Your task to perform on an android device: toggle location history Image 0: 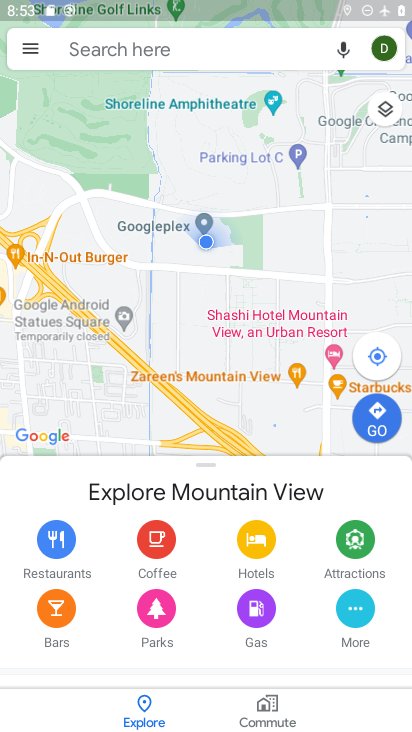
Step 0: press home button
Your task to perform on an android device: toggle location history Image 1: 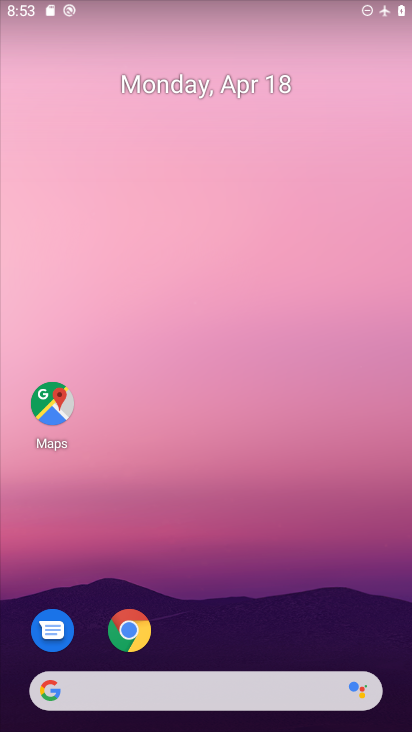
Step 1: drag from (203, 624) to (321, 3)
Your task to perform on an android device: toggle location history Image 2: 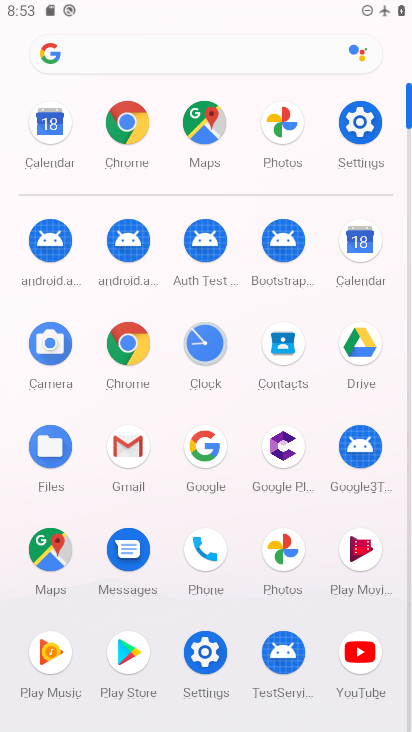
Step 2: click (207, 659)
Your task to perform on an android device: toggle location history Image 3: 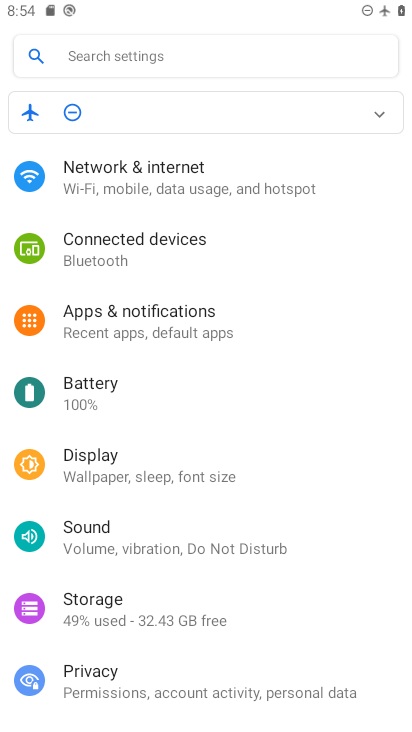
Step 3: drag from (139, 663) to (217, 193)
Your task to perform on an android device: toggle location history Image 4: 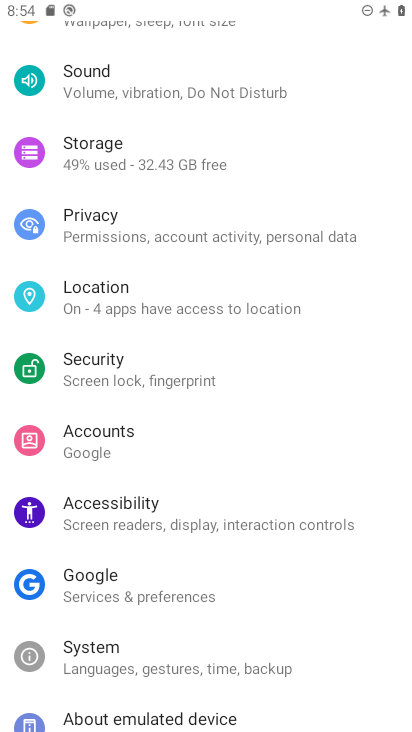
Step 4: click (129, 314)
Your task to perform on an android device: toggle location history Image 5: 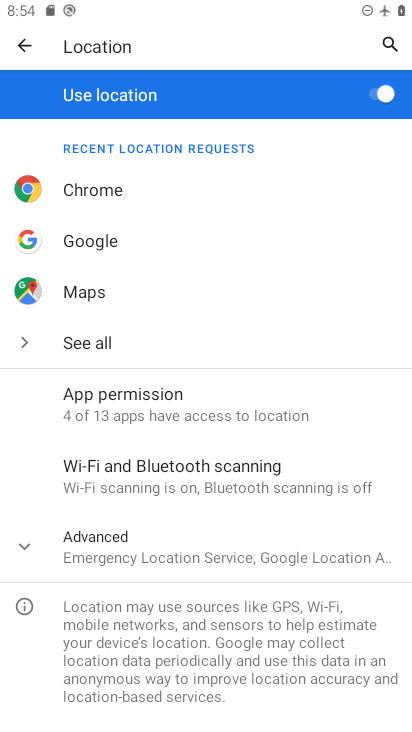
Step 5: click (147, 549)
Your task to perform on an android device: toggle location history Image 6: 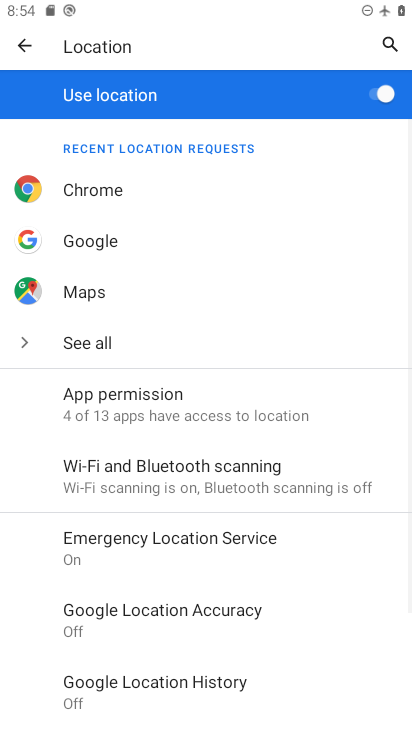
Step 6: drag from (181, 576) to (231, 336)
Your task to perform on an android device: toggle location history Image 7: 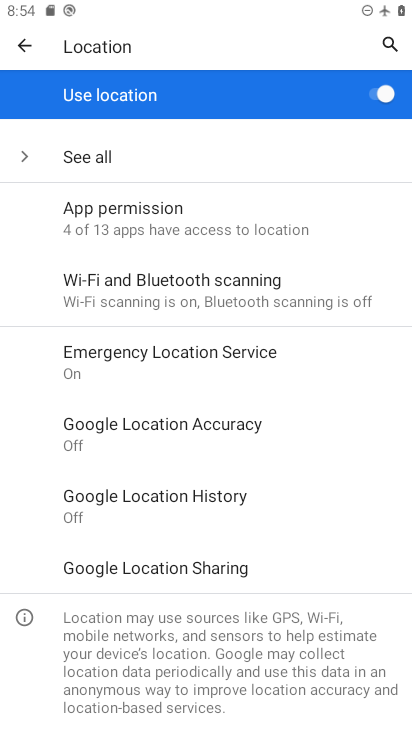
Step 7: click (141, 515)
Your task to perform on an android device: toggle location history Image 8: 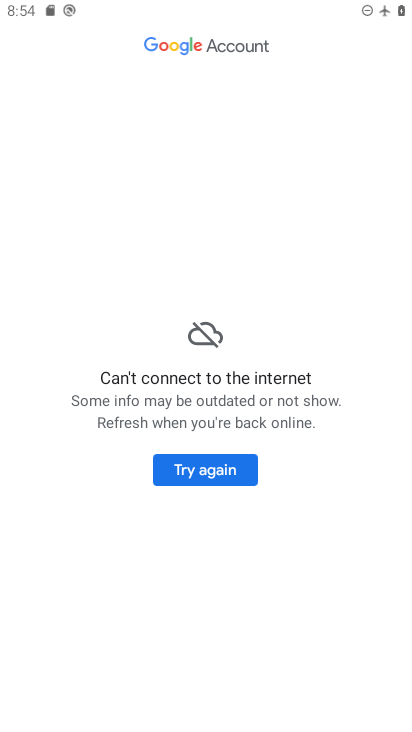
Step 8: click (191, 476)
Your task to perform on an android device: toggle location history Image 9: 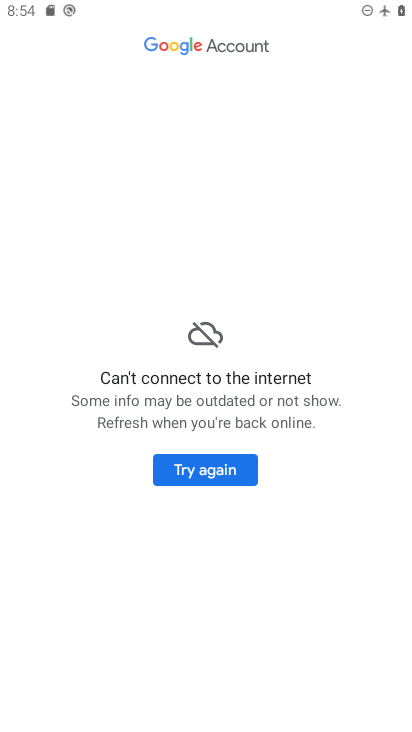
Step 9: task complete